Your task to perform on an android device: Open the calendar and show me this week's events? Image 0: 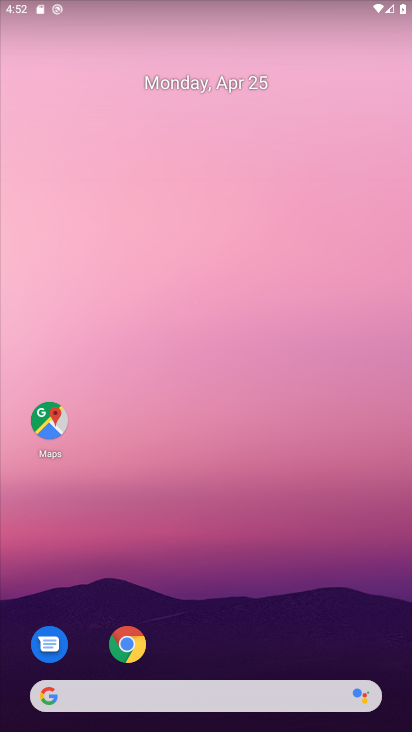
Step 0: drag from (265, 589) to (208, 50)
Your task to perform on an android device: Open the calendar and show me this week's events? Image 1: 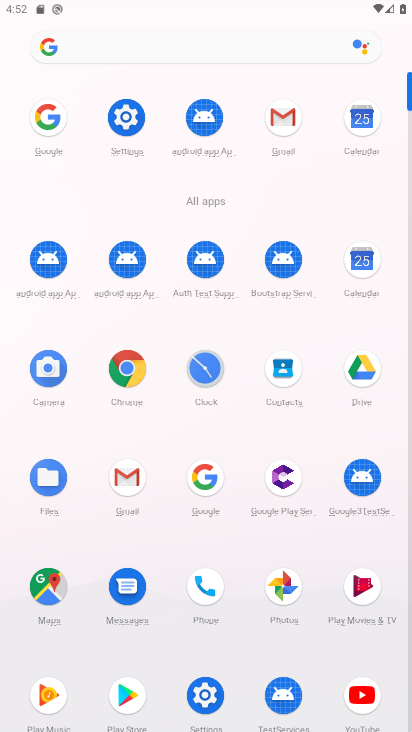
Step 1: click (357, 258)
Your task to perform on an android device: Open the calendar and show me this week's events? Image 2: 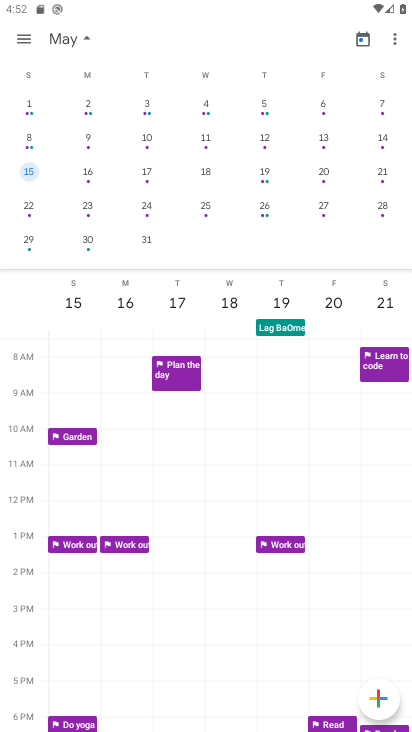
Step 2: drag from (55, 154) to (404, 156)
Your task to perform on an android device: Open the calendar and show me this week's events? Image 3: 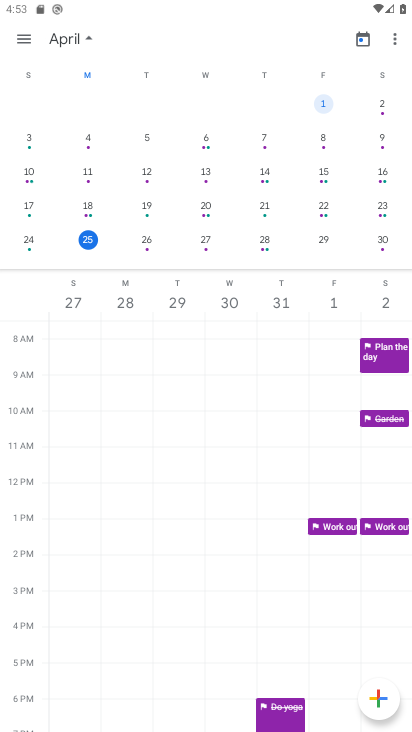
Step 3: click (34, 232)
Your task to perform on an android device: Open the calendar and show me this week's events? Image 4: 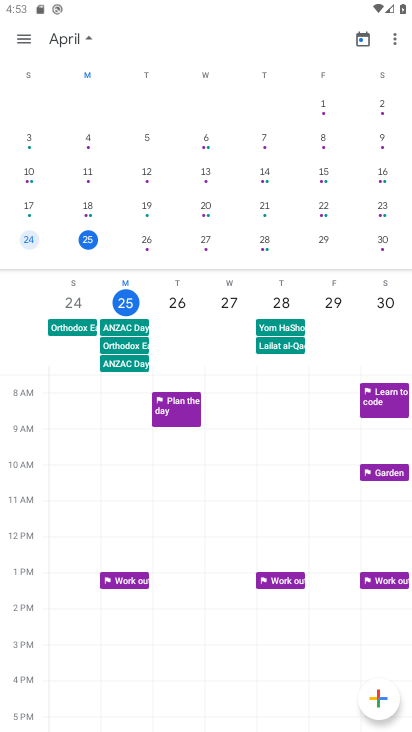
Step 4: task complete